Your task to perform on an android device: empty trash in google photos Image 0: 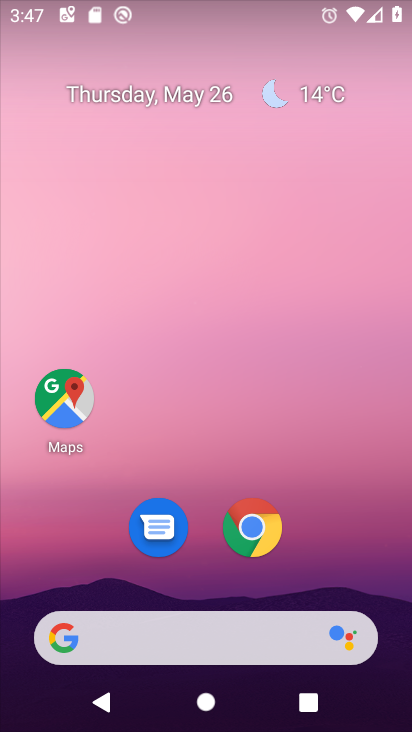
Step 0: drag from (389, 607) to (268, 95)
Your task to perform on an android device: empty trash in google photos Image 1: 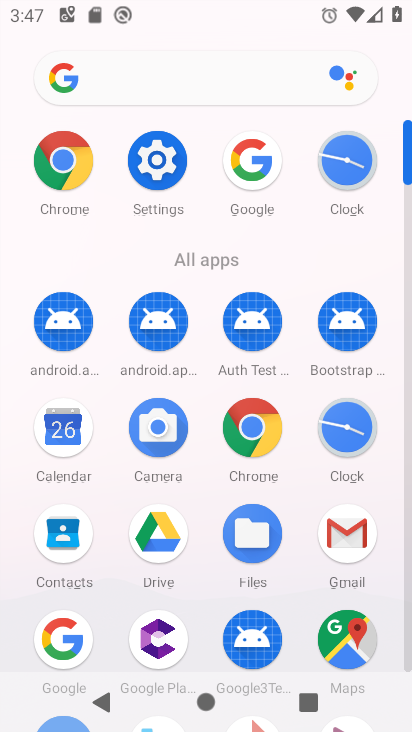
Step 1: click (409, 657)
Your task to perform on an android device: empty trash in google photos Image 2: 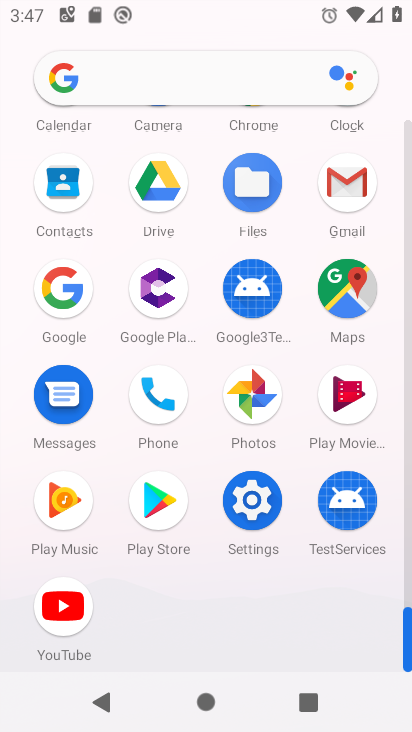
Step 2: click (255, 413)
Your task to perform on an android device: empty trash in google photos Image 3: 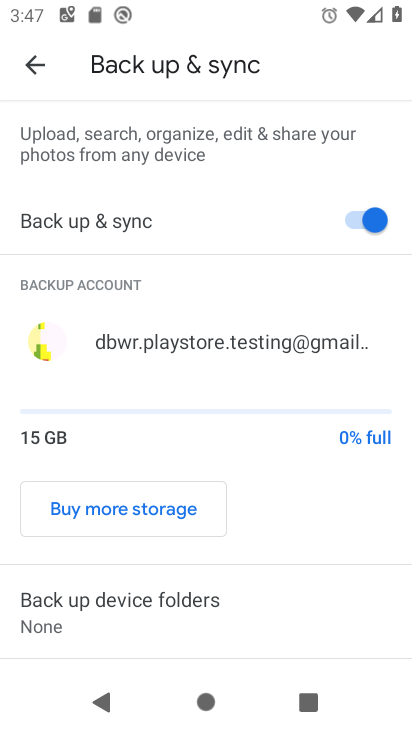
Step 3: click (41, 73)
Your task to perform on an android device: empty trash in google photos Image 4: 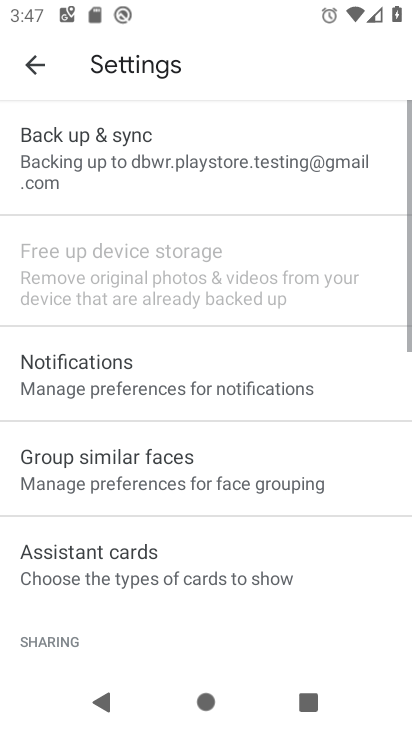
Step 4: click (41, 73)
Your task to perform on an android device: empty trash in google photos Image 5: 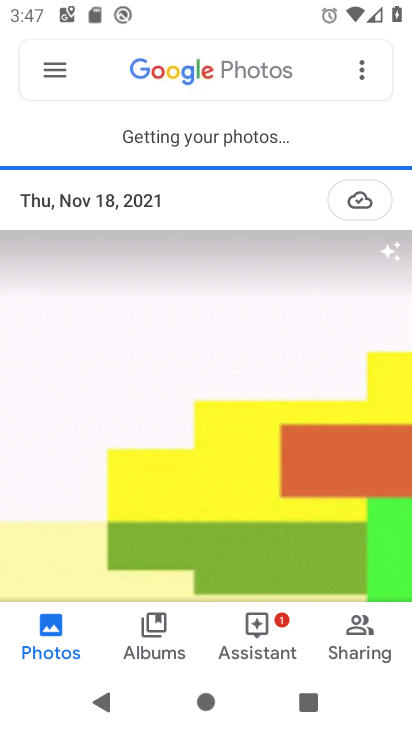
Step 5: click (41, 73)
Your task to perform on an android device: empty trash in google photos Image 6: 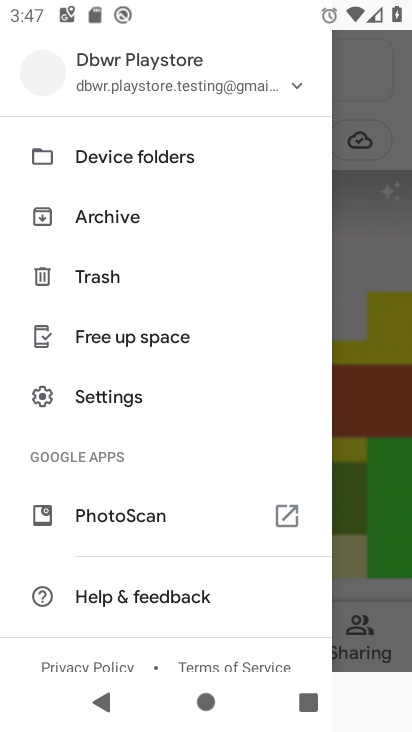
Step 6: click (133, 280)
Your task to perform on an android device: empty trash in google photos Image 7: 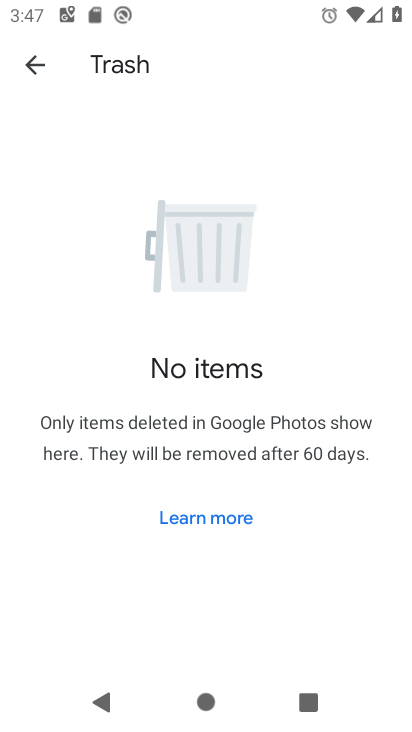
Step 7: task complete